Your task to perform on an android device: toggle pop-ups in chrome Image 0: 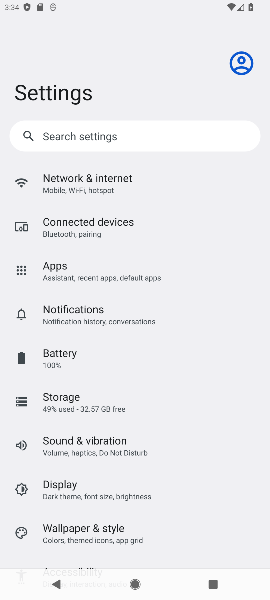
Step 0: press home button
Your task to perform on an android device: toggle pop-ups in chrome Image 1: 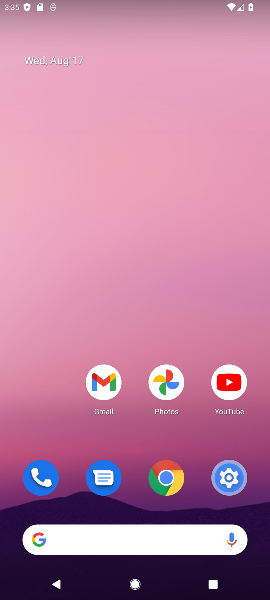
Step 1: drag from (143, 443) to (160, 0)
Your task to perform on an android device: toggle pop-ups in chrome Image 2: 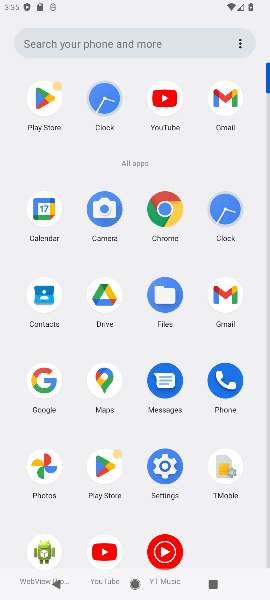
Step 2: click (166, 205)
Your task to perform on an android device: toggle pop-ups in chrome Image 3: 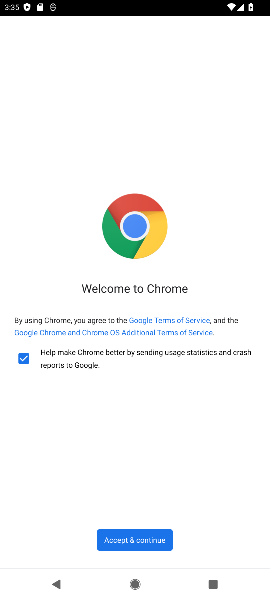
Step 3: click (164, 534)
Your task to perform on an android device: toggle pop-ups in chrome Image 4: 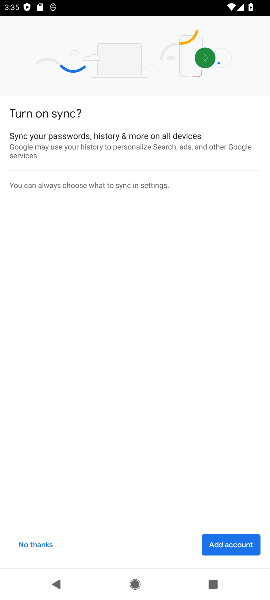
Step 4: click (248, 538)
Your task to perform on an android device: toggle pop-ups in chrome Image 5: 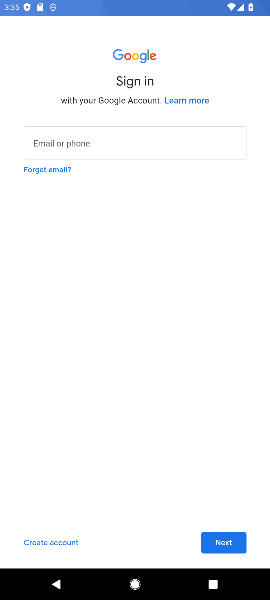
Step 5: press back button
Your task to perform on an android device: toggle pop-ups in chrome Image 6: 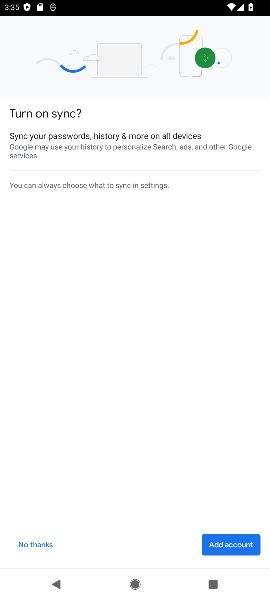
Step 6: click (43, 543)
Your task to perform on an android device: toggle pop-ups in chrome Image 7: 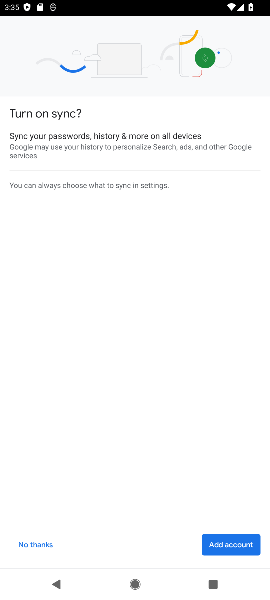
Step 7: click (35, 543)
Your task to perform on an android device: toggle pop-ups in chrome Image 8: 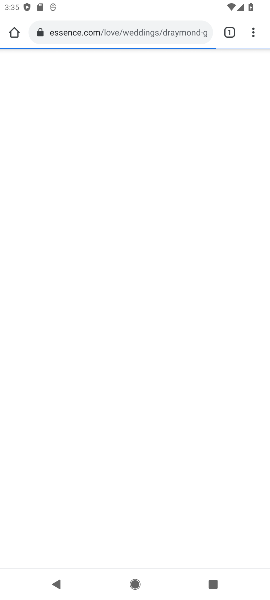
Step 8: drag from (256, 26) to (157, 354)
Your task to perform on an android device: toggle pop-ups in chrome Image 9: 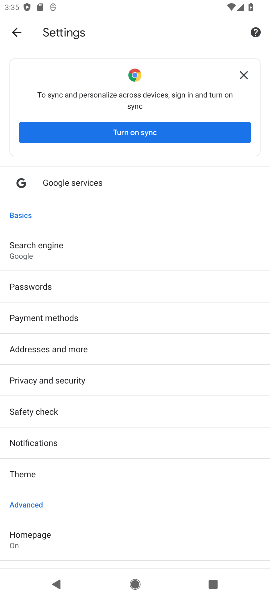
Step 9: drag from (151, 524) to (221, 158)
Your task to perform on an android device: toggle pop-ups in chrome Image 10: 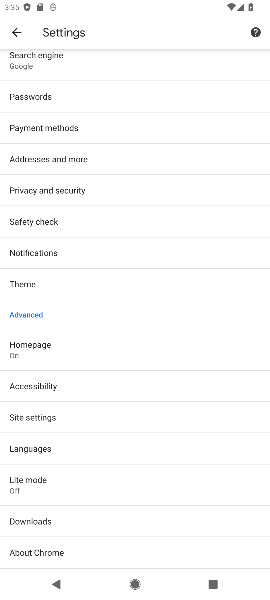
Step 10: click (48, 419)
Your task to perform on an android device: toggle pop-ups in chrome Image 11: 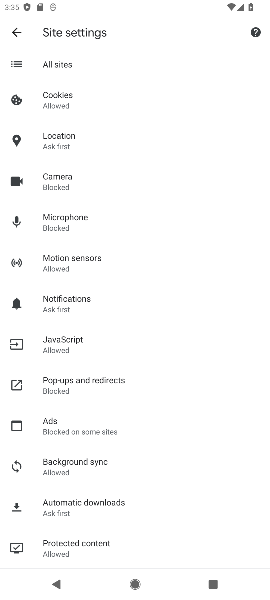
Step 11: click (75, 380)
Your task to perform on an android device: toggle pop-ups in chrome Image 12: 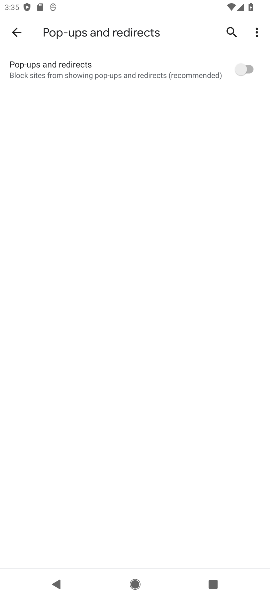
Step 12: click (252, 68)
Your task to perform on an android device: toggle pop-ups in chrome Image 13: 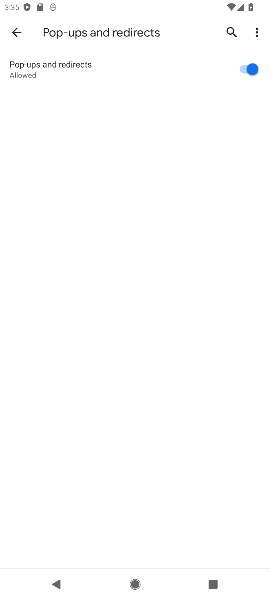
Step 13: task complete